Your task to perform on an android device: turn on the 12-hour format for clock Image 0: 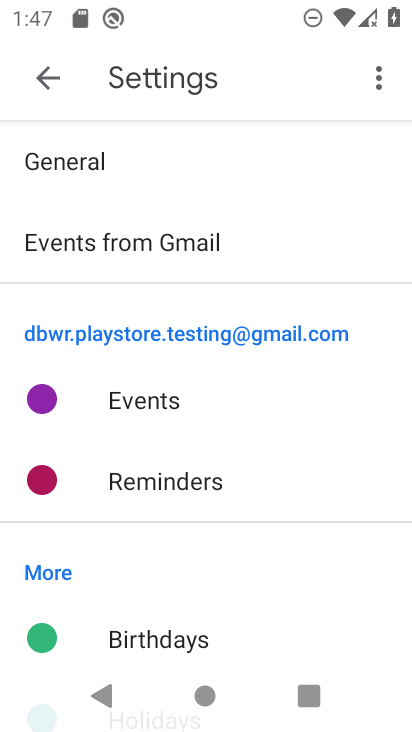
Step 0: press back button
Your task to perform on an android device: turn on the 12-hour format for clock Image 1: 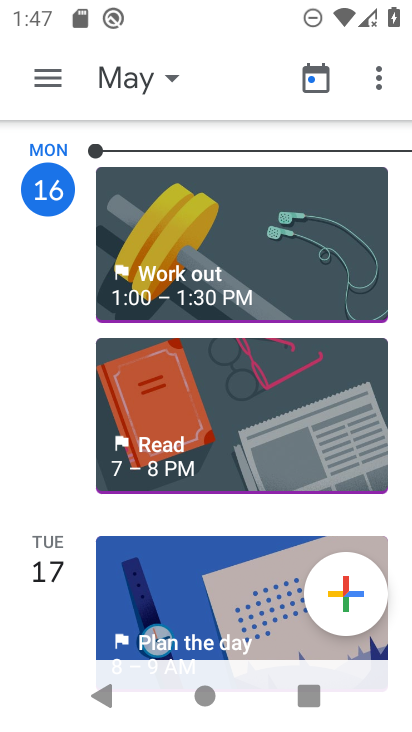
Step 1: press home button
Your task to perform on an android device: turn on the 12-hour format for clock Image 2: 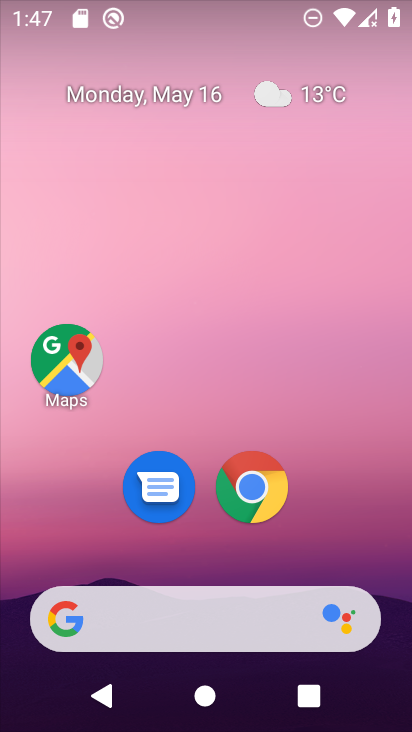
Step 2: drag from (404, 642) to (320, 158)
Your task to perform on an android device: turn on the 12-hour format for clock Image 3: 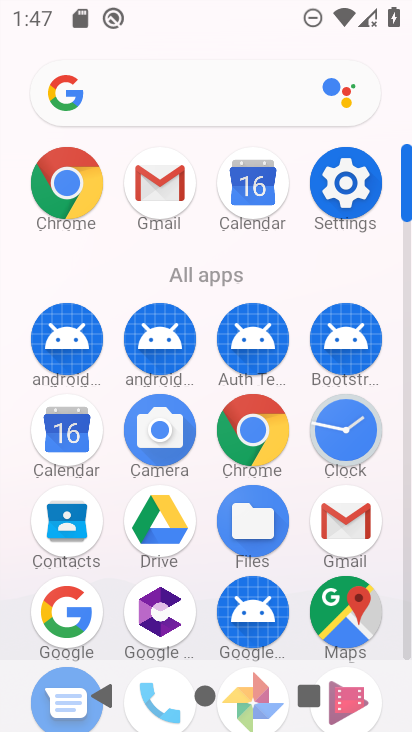
Step 3: click (350, 450)
Your task to perform on an android device: turn on the 12-hour format for clock Image 4: 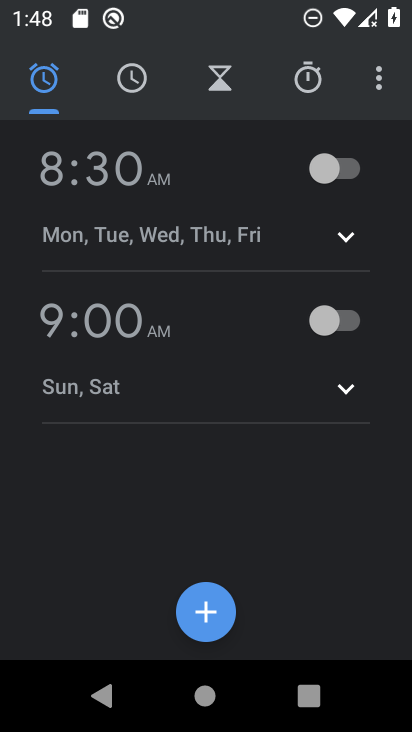
Step 4: click (384, 76)
Your task to perform on an android device: turn on the 12-hour format for clock Image 5: 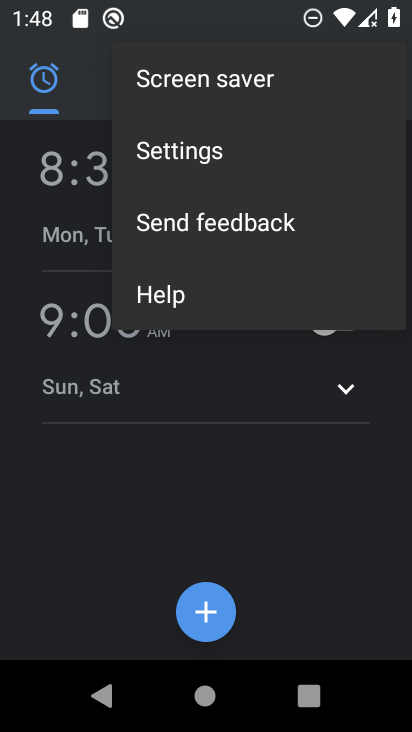
Step 5: click (217, 145)
Your task to perform on an android device: turn on the 12-hour format for clock Image 6: 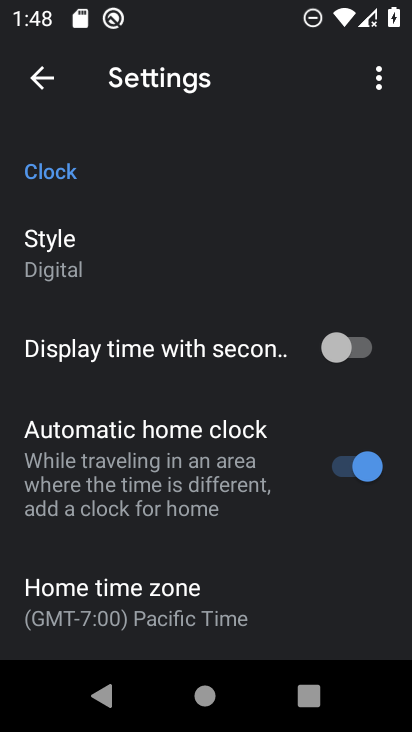
Step 6: drag from (242, 606) to (212, 268)
Your task to perform on an android device: turn on the 12-hour format for clock Image 7: 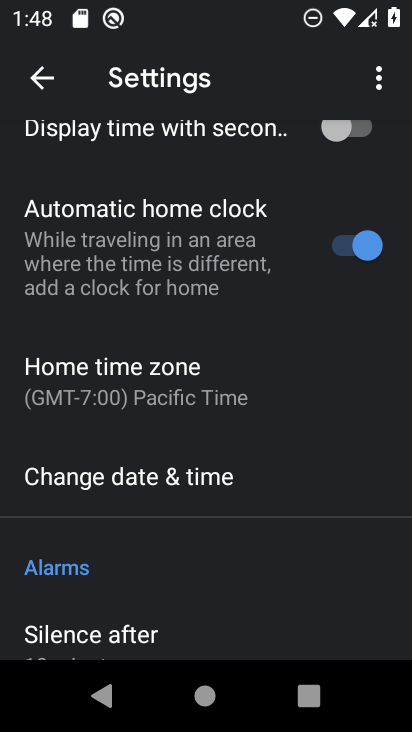
Step 7: click (118, 472)
Your task to perform on an android device: turn on the 12-hour format for clock Image 8: 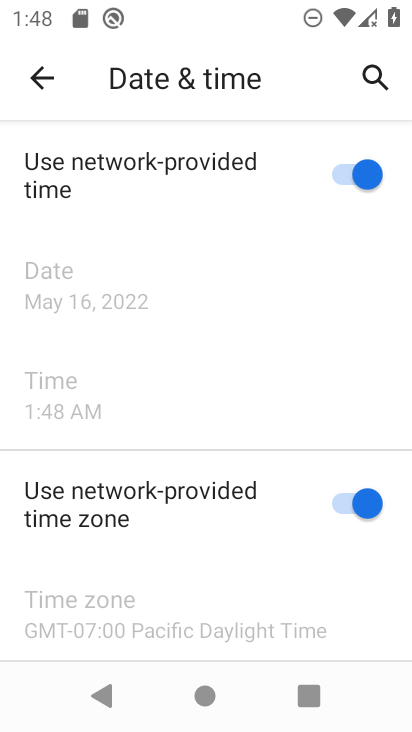
Step 8: task complete